Your task to perform on an android device: Show me recent news Image 0: 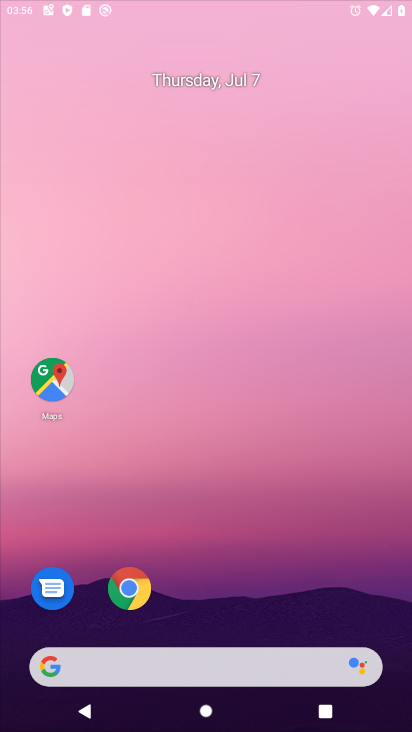
Step 0: drag from (197, 606) to (164, 328)
Your task to perform on an android device: Show me recent news Image 1: 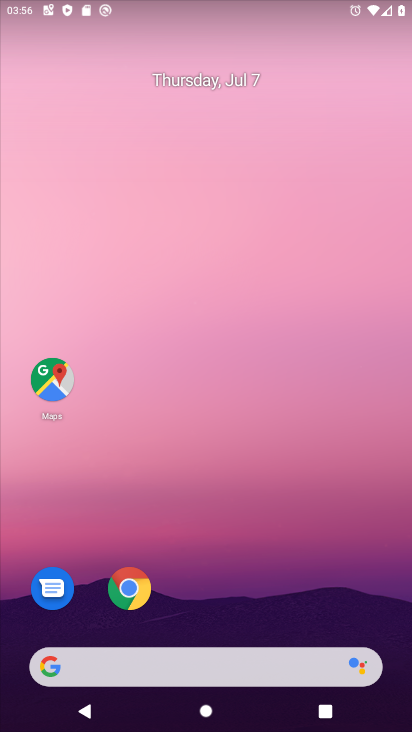
Step 1: drag from (194, 648) to (174, 273)
Your task to perform on an android device: Show me recent news Image 2: 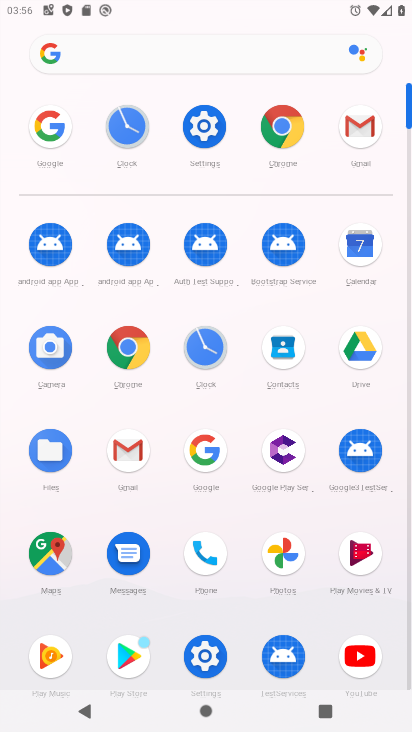
Step 2: click (221, 456)
Your task to perform on an android device: Show me recent news Image 3: 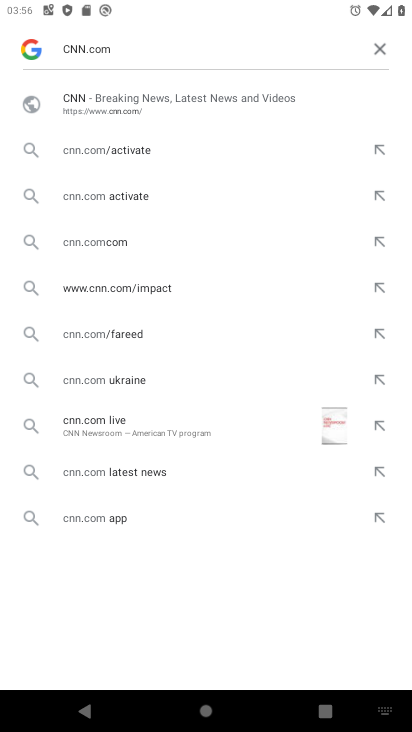
Step 3: click (370, 57)
Your task to perform on an android device: Show me recent news Image 4: 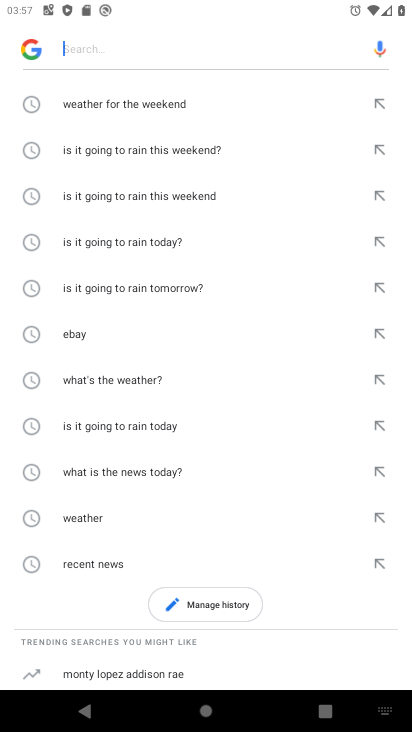
Step 4: click (109, 565)
Your task to perform on an android device: Show me recent news Image 5: 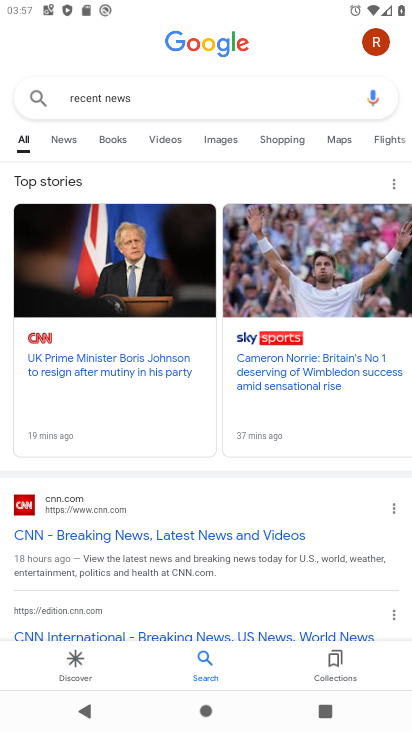
Step 5: task complete